Your task to perform on an android device: Open calendar and show me the fourth week of next month Image 0: 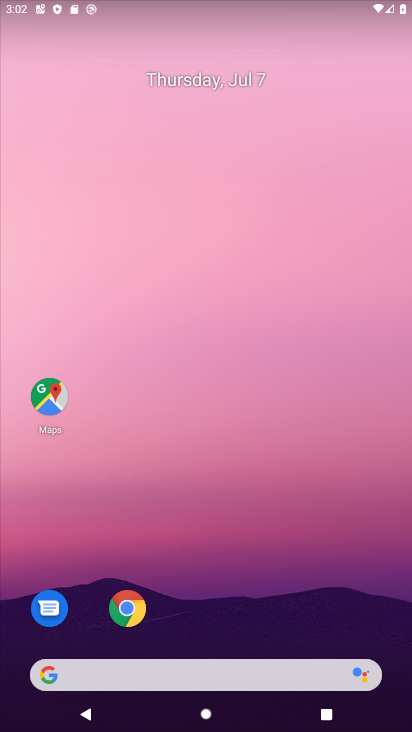
Step 0: press home button
Your task to perform on an android device: Open calendar and show me the fourth week of next month Image 1: 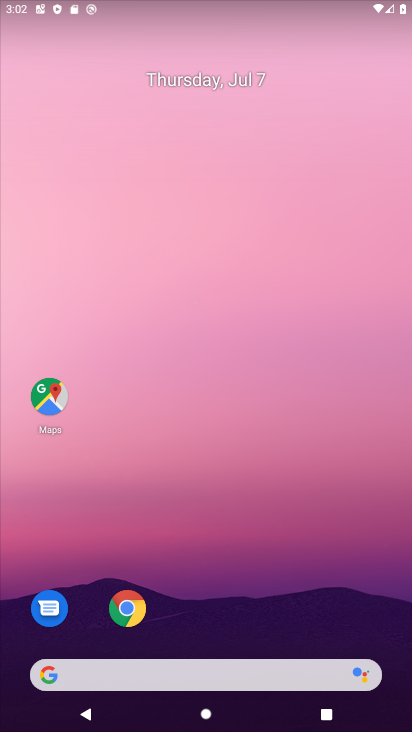
Step 1: drag from (230, 629) to (249, 15)
Your task to perform on an android device: Open calendar and show me the fourth week of next month Image 2: 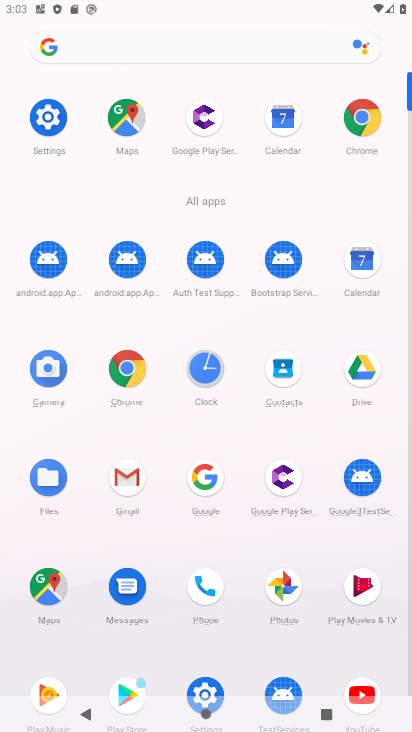
Step 2: click (358, 254)
Your task to perform on an android device: Open calendar and show me the fourth week of next month Image 3: 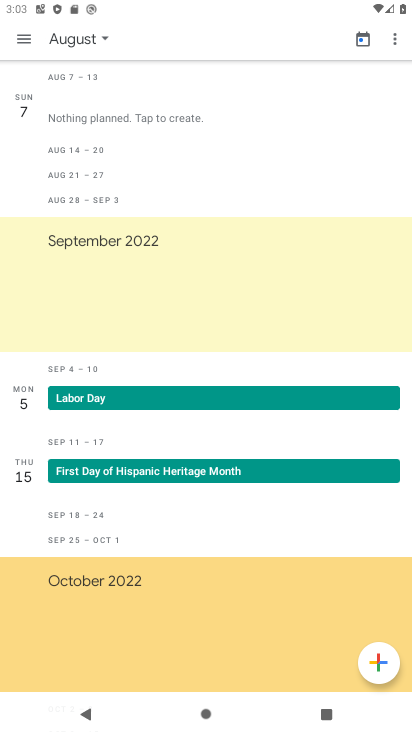
Step 3: click (104, 33)
Your task to perform on an android device: Open calendar and show me the fourth week of next month Image 4: 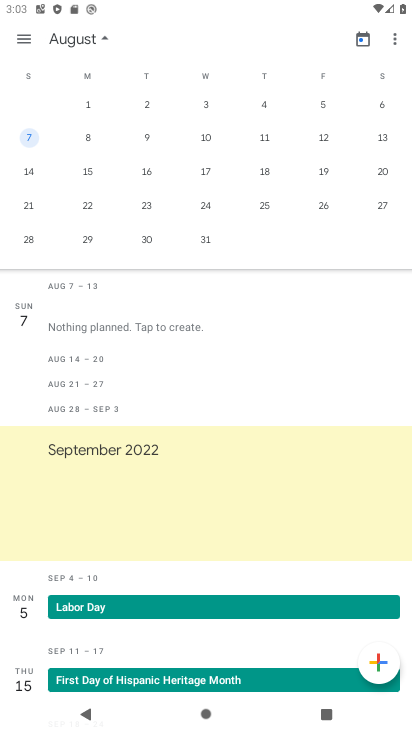
Step 4: click (24, 205)
Your task to perform on an android device: Open calendar and show me the fourth week of next month Image 5: 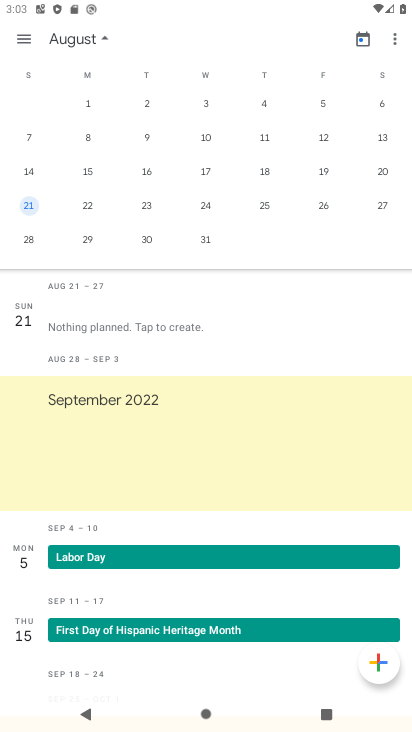
Step 5: click (109, 43)
Your task to perform on an android device: Open calendar and show me the fourth week of next month Image 6: 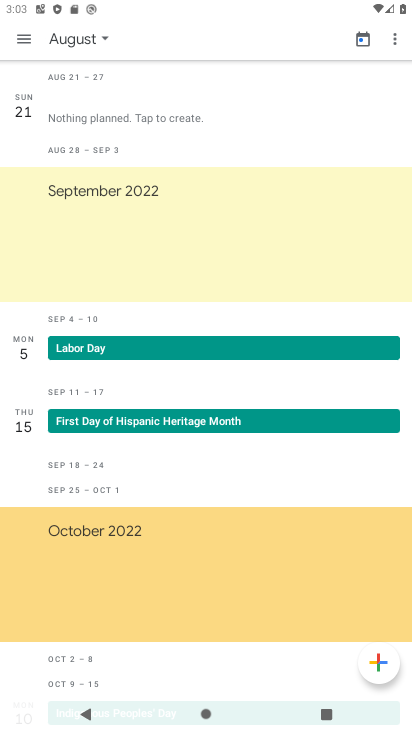
Step 6: task complete